Your task to perform on an android device: Go to Google Image 0: 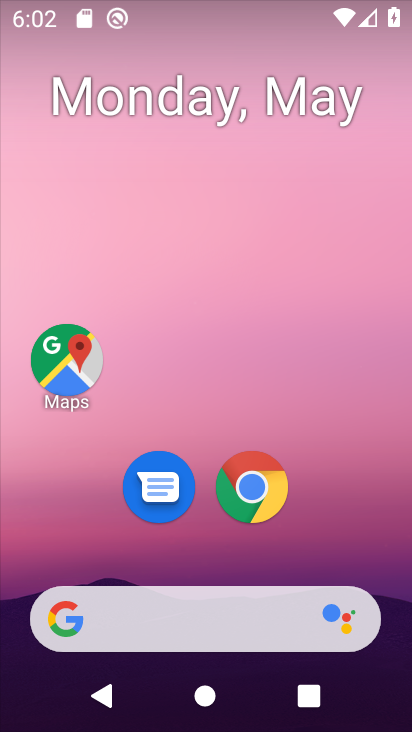
Step 0: drag from (212, 562) to (246, 75)
Your task to perform on an android device: Go to Google Image 1: 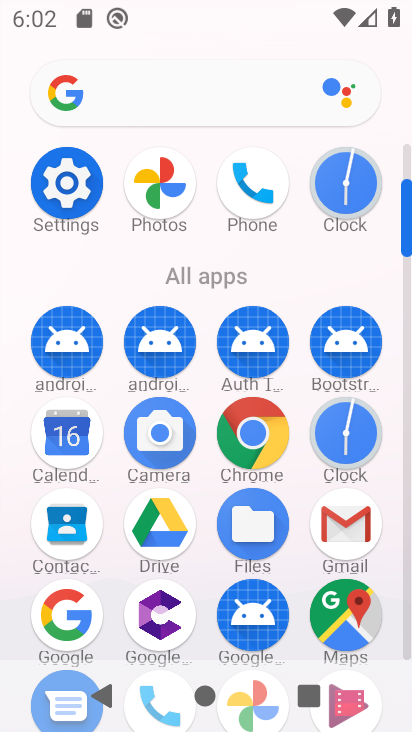
Step 1: click (65, 608)
Your task to perform on an android device: Go to Google Image 2: 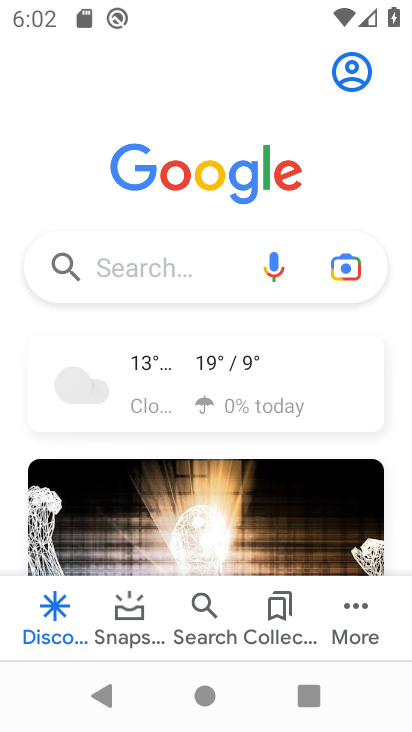
Step 2: task complete